Your task to perform on an android device: Open maps Image 0: 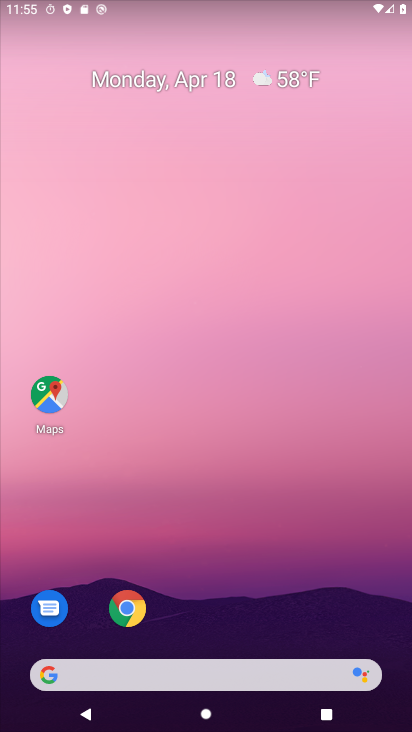
Step 0: drag from (310, 606) to (249, 77)
Your task to perform on an android device: Open maps Image 1: 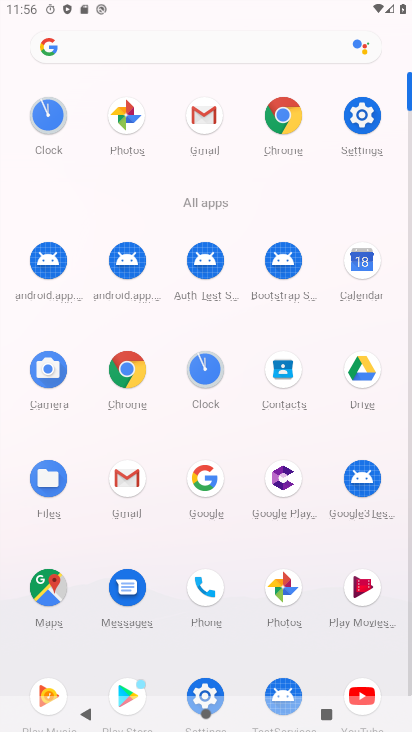
Step 1: click (47, 588)
Your task to perform on an android device: Open maps Image 2: 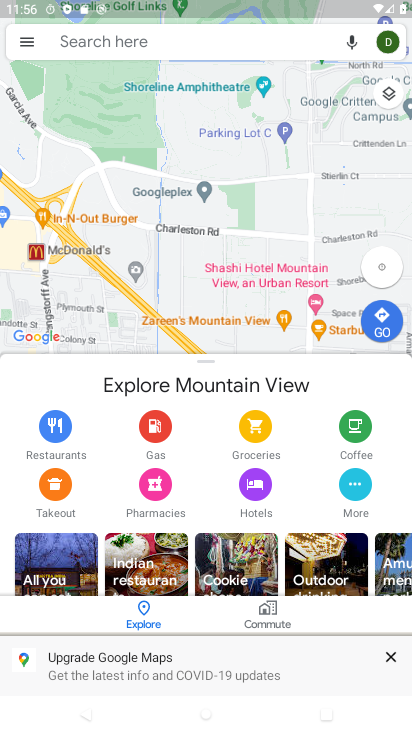
Step 2: task complete